Your task to perform on an android device: show emergency info Image 0: 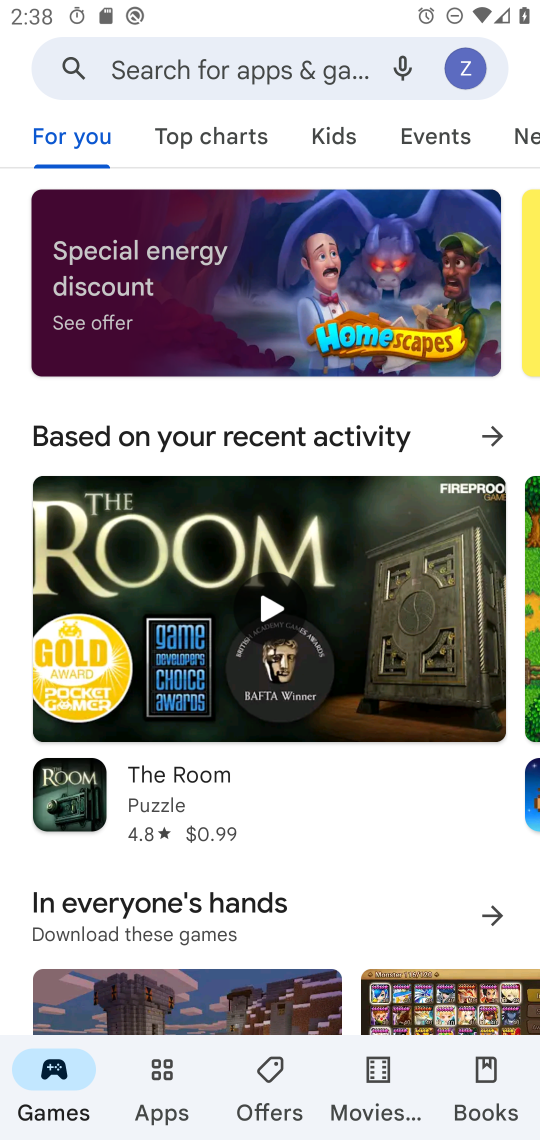
Step 0: press home button
Your task to perform on an android device: show emergency info Image 1: 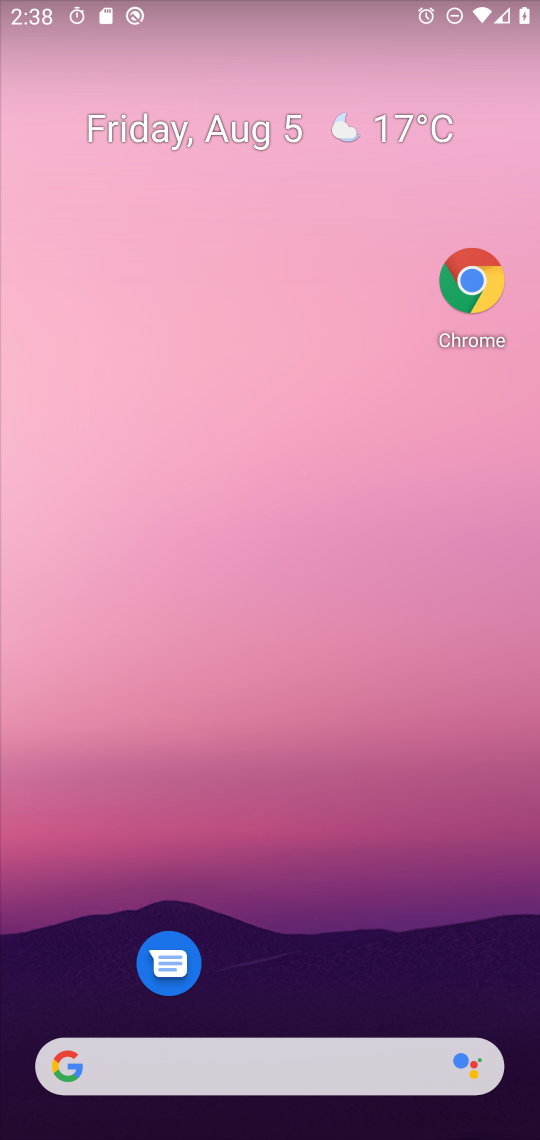
Step 1: drag from (415, 788) to (380, 103)
Your task to perform on an android device: show emergency info Image 2: 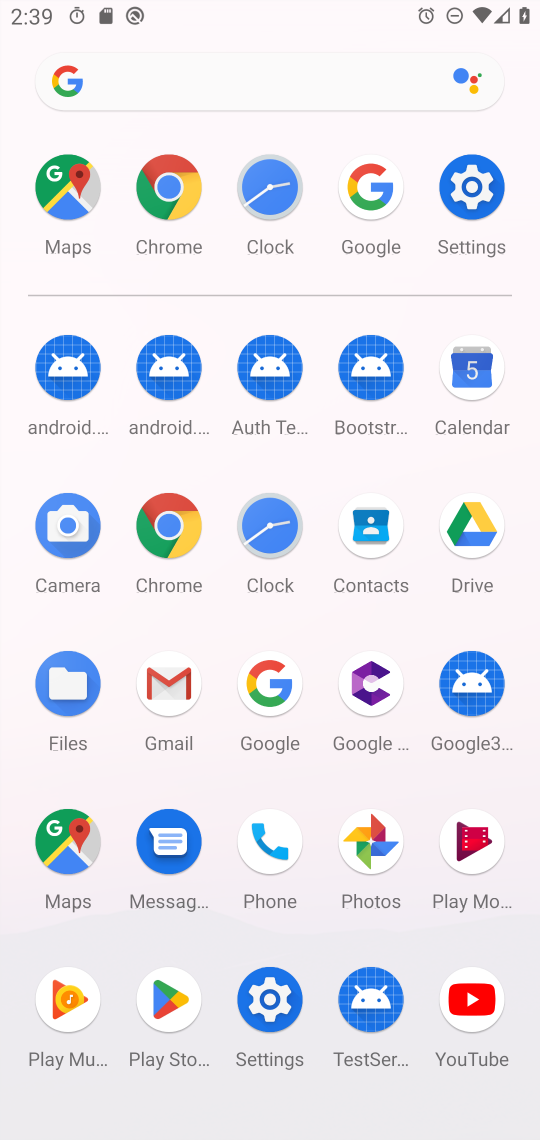
Step 2: click (480, 185)
Your task to perform on an android device: show emergency info Image 3: 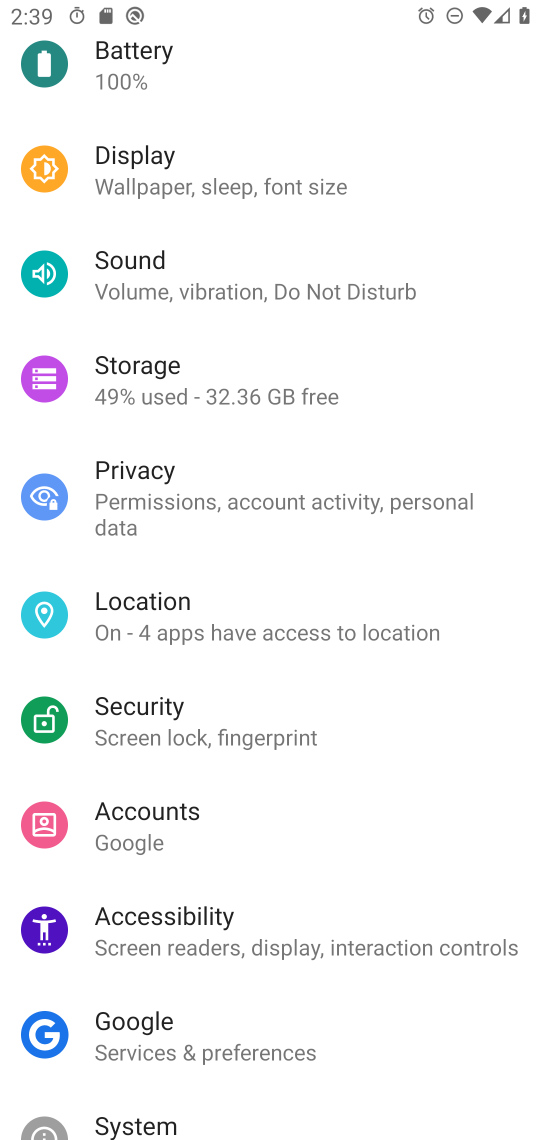
Step 3: drag from (270, 1067) to (269, 293)
Your task to perform on an android device: show emergency info Image 4: 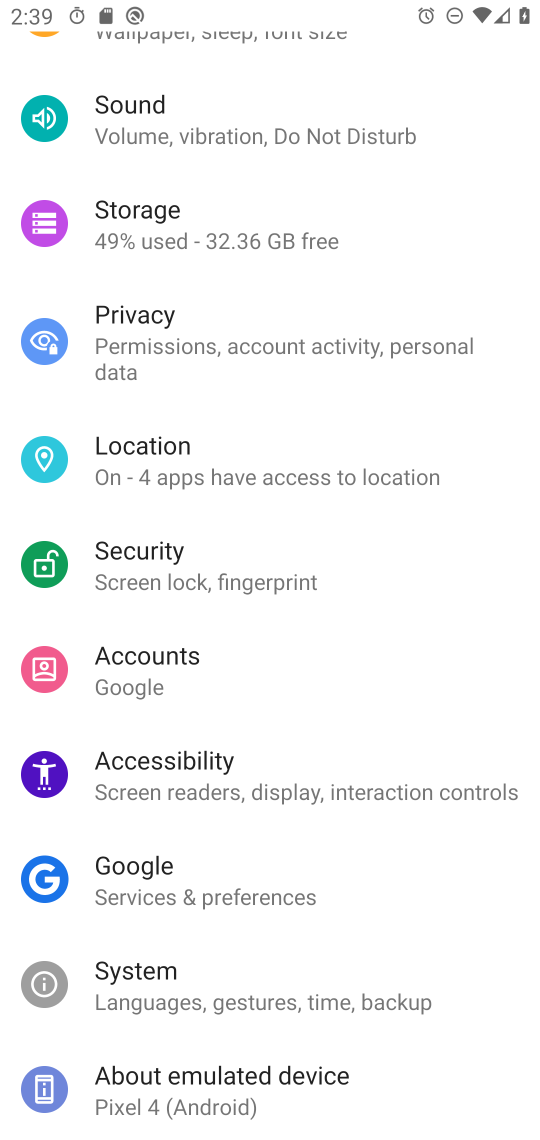
Step 4: click (204, 1092)
Your task to perform on an android device: show emergency info Image 5: 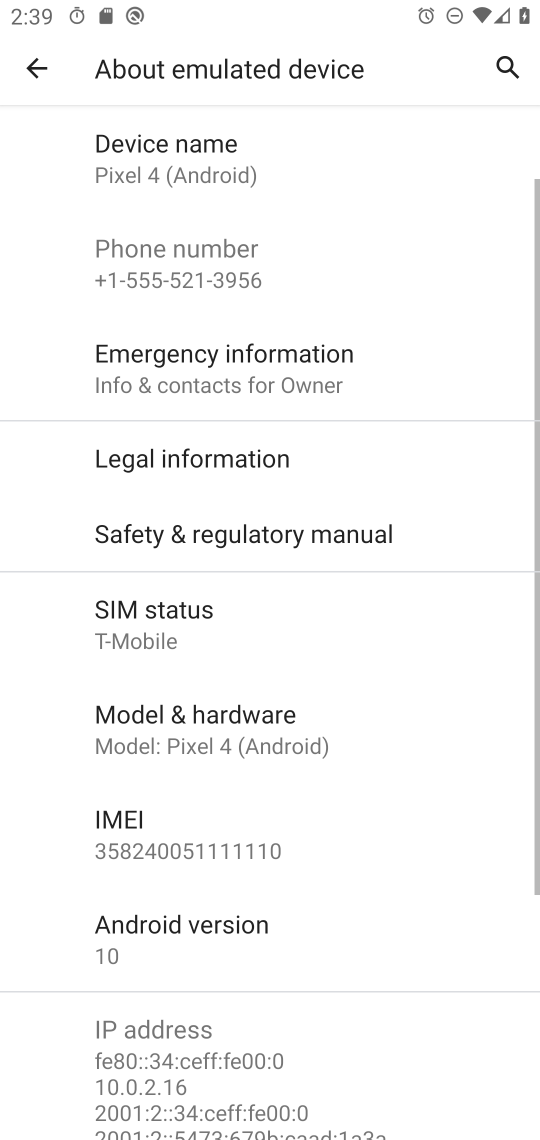
Step 5: click (106, 373)
Your task to perform on an android device: show emergency info Image 6: 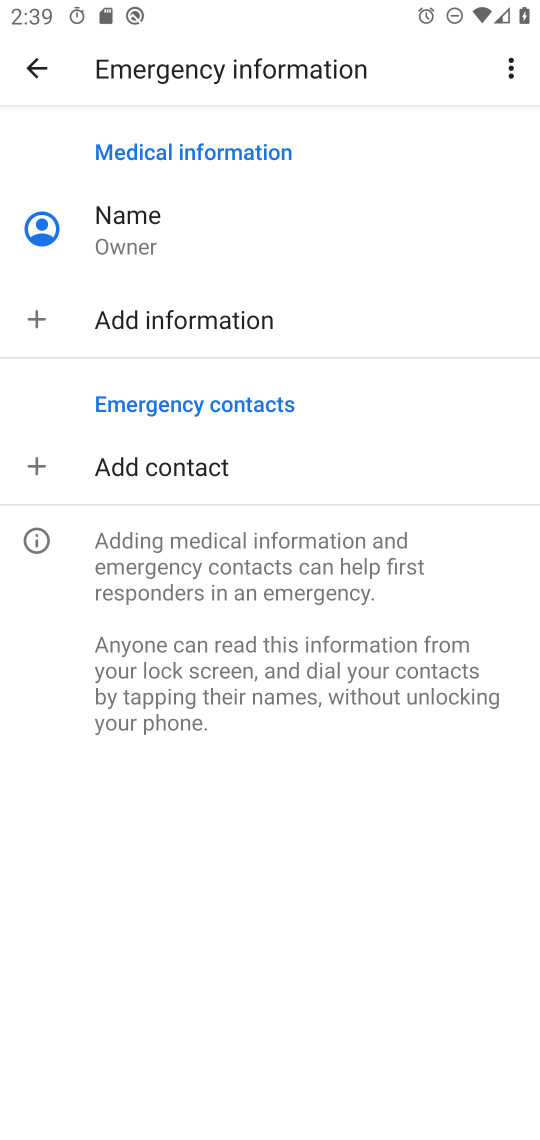
Step 6: task complete